Your task to perform on an android device: Open the stopwatch Image 0: 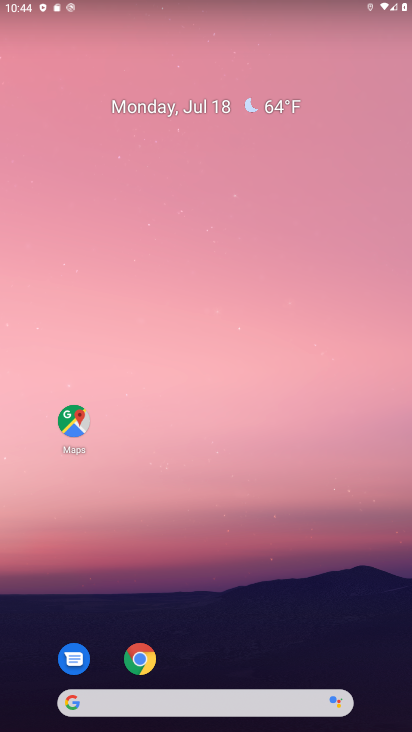
Step 0: drag from (165, 717) to (65, 2)
Your task to perform on an android device: Open the stopwatch Image 1: 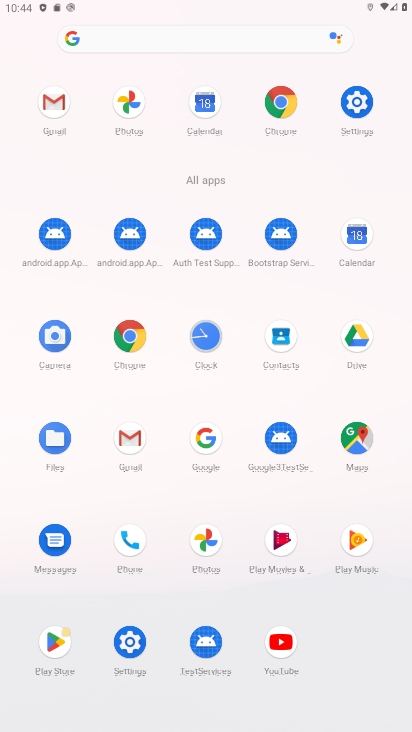
Step 1: click (213, 337)
Your task to perform on an android device: Open the stopwatch Image 2: 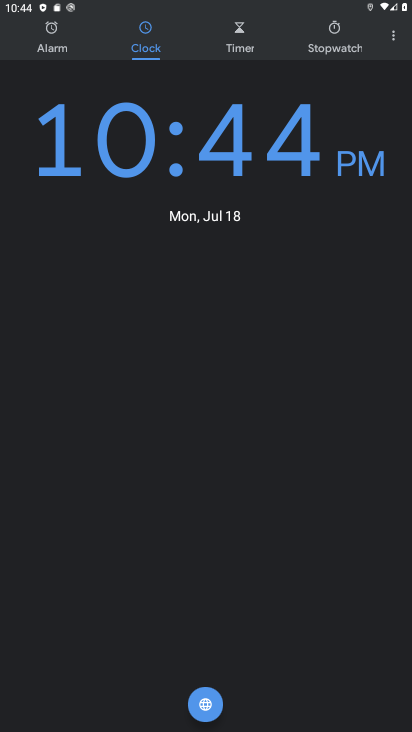
Step 2: click (338, 26)
Your task to perform on an android device: Open the stopwatch Image 3: 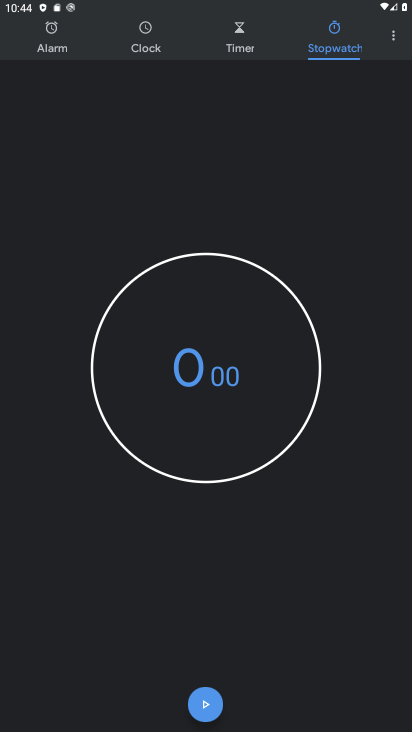
Step 3: click (188, 704)
Your task to perform on an android device: Open the stopwatch Image 4: 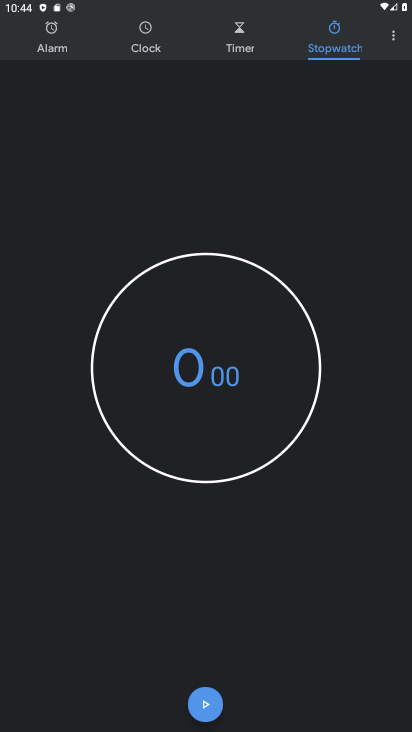
Step 4: task complete